Your task to perform on an android device: Go to settings Image 0: 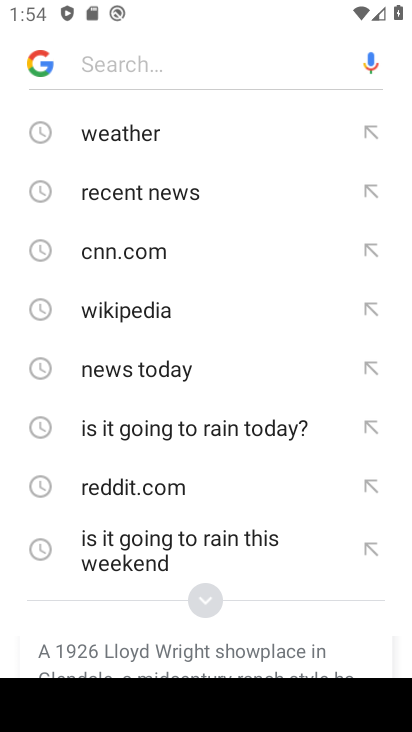
Step 0: press home button
Your task to perform on an android device: Go to settings Image 1: 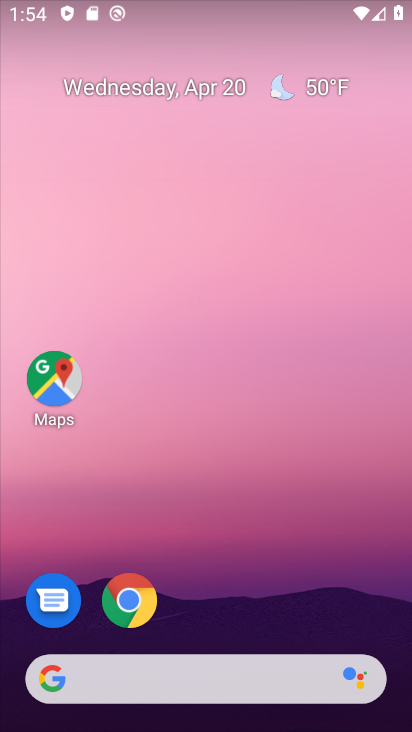
Step 1: drag from (264, 640) to (300, 91)
Your task to perform on an android device: Go to settings Image 2: 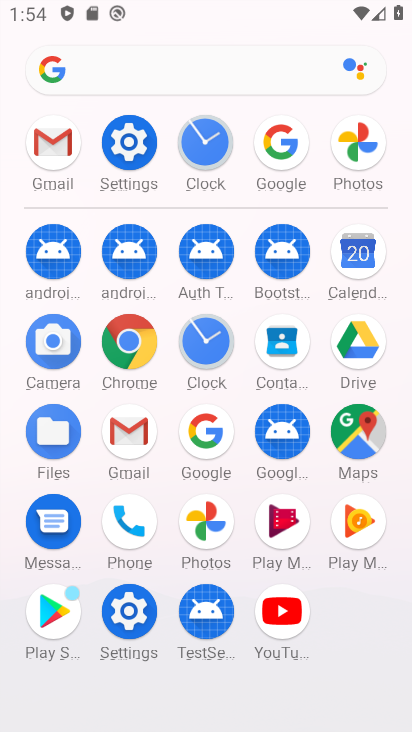
Step 2: click (122, 143)
Your task to perform on an android device: Go to settings Image 3: 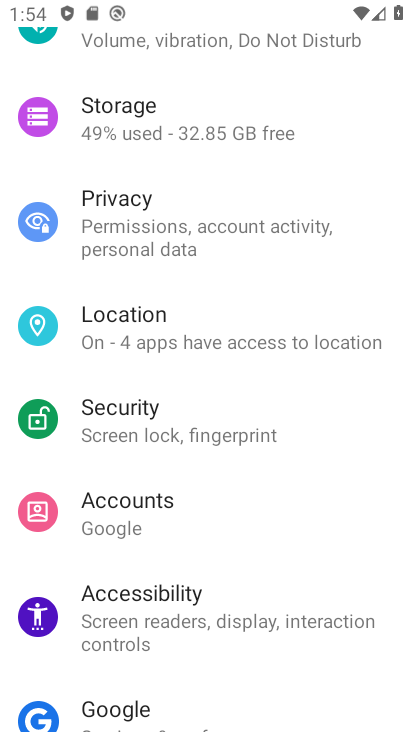
Step 3: task complete